Your task to perform on an android device: Check the weather Image 0: 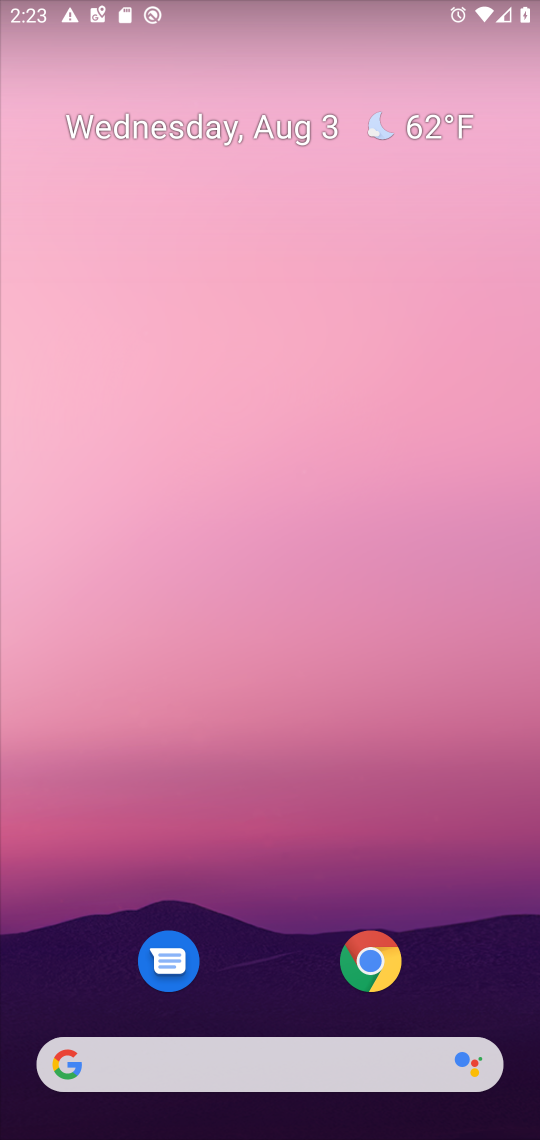
Step 0: click (222, 1057)
Your task to perform on an android device: Check the weather Image 1: 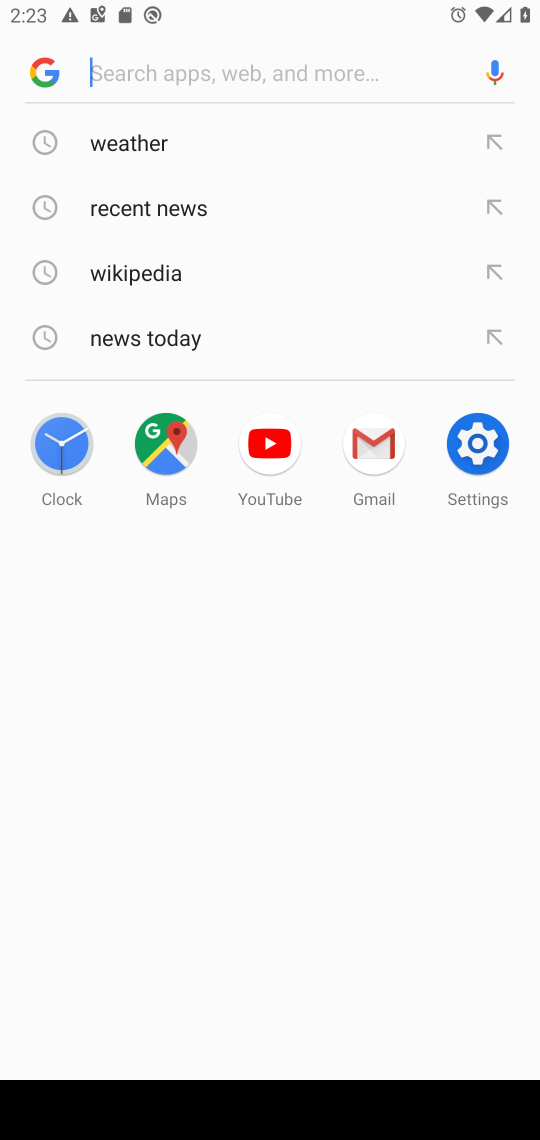
Step 1: click (132, 151)
Your task to perform on an android device: Check the weather Image 2: 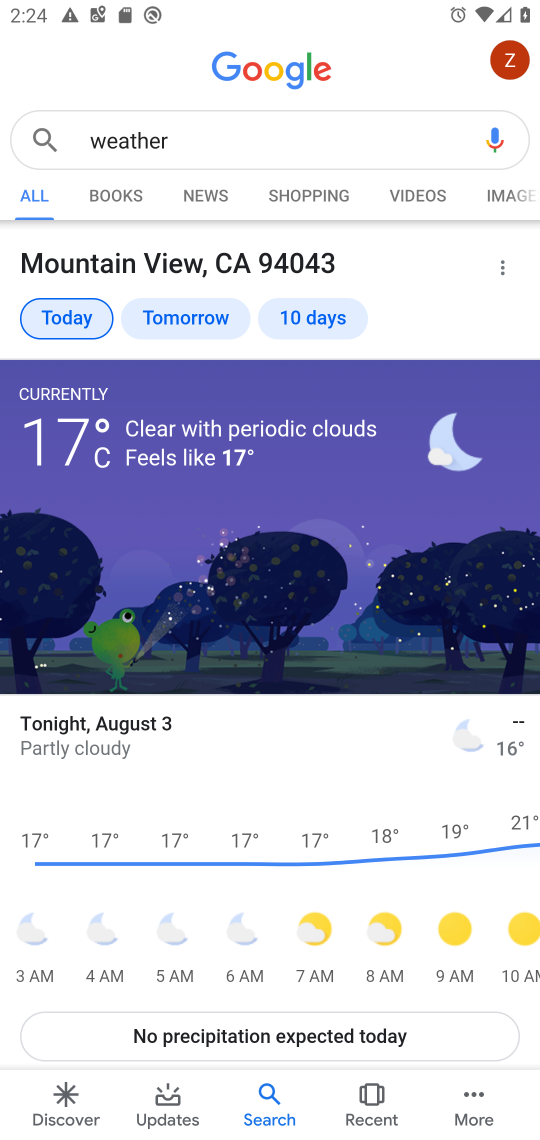
Step 2: task complete